Your task to perform on an android device: Open CNN.com Image 0: 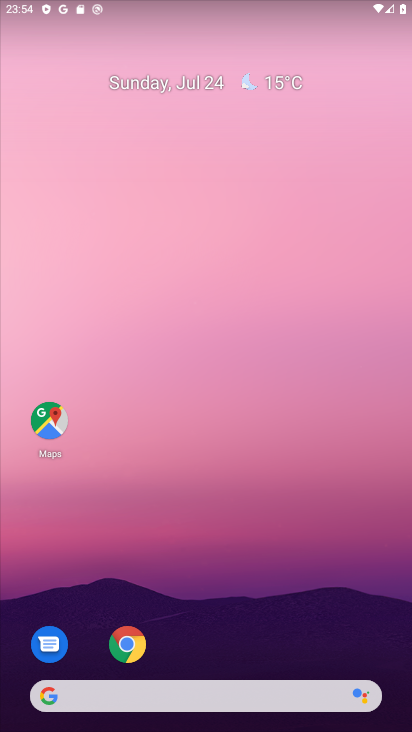
Step 0: click (126, 634)
Your task to perform on an android device: Open CNN.com Image 1: 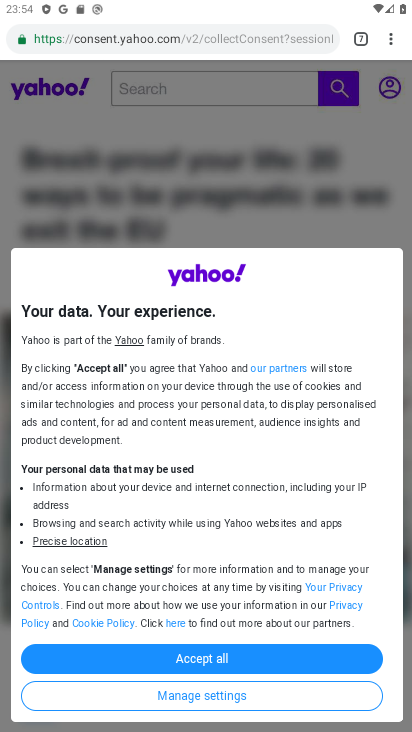
Step 1: click (391, 44)
Your task to perform on an android device: Open CNN.com Image 2: 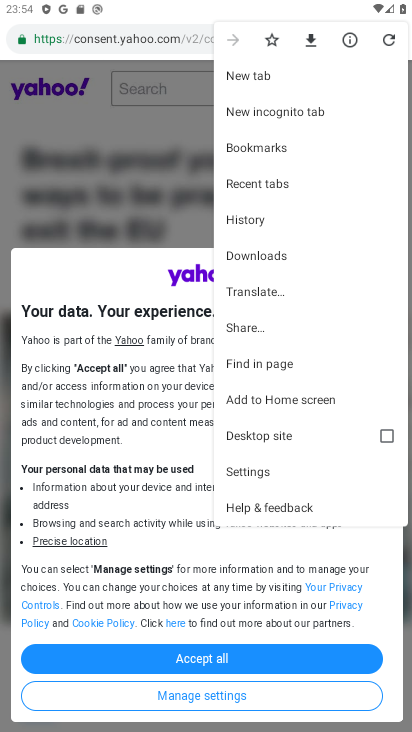
Step 2: click (246, 75)
Your task to perform on an android device: Open CNN.com Image 3: 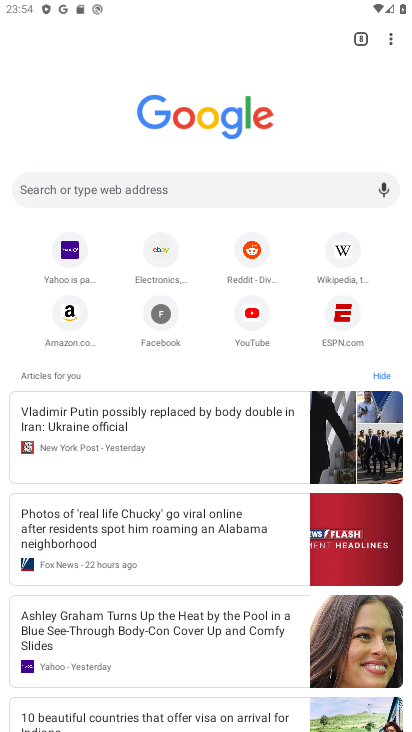
Step 3: click (239, 184)
Your task to perform on an android device: Open CNN.com Image 4: 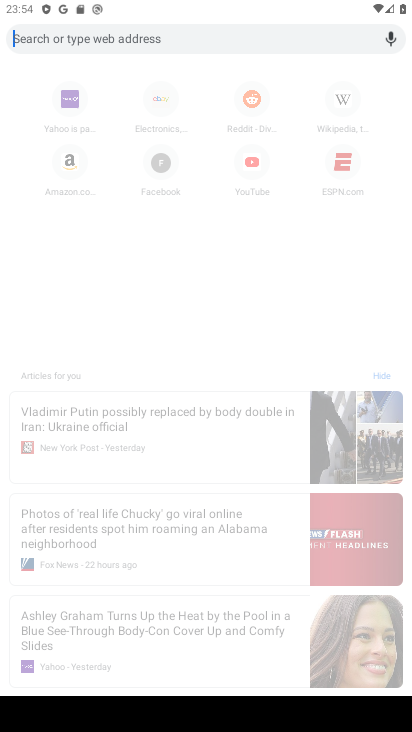
Step 4: type "CNN.com"
Your task to perform on an android device: Open CNN.com Image 5: 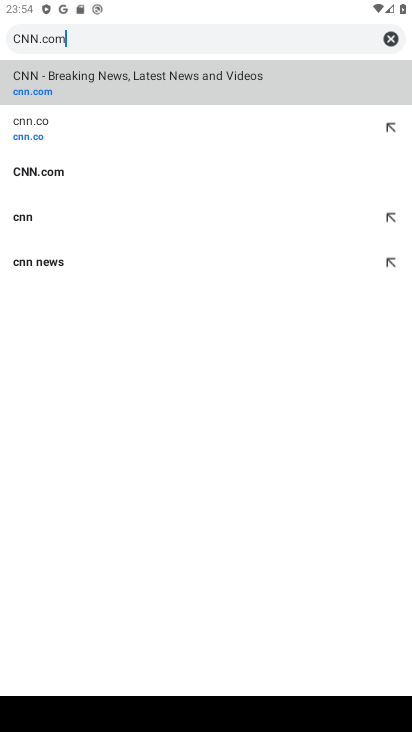
Step 5: type ""
Your task to perform on an android device: Open CNN.com Image 6: 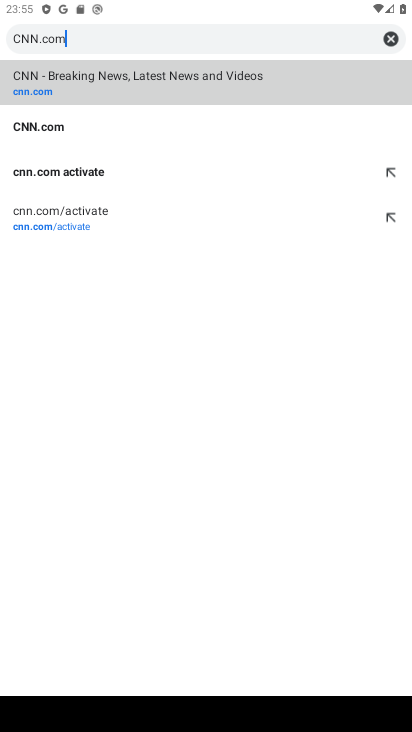
Step 6: click (101, 74)
Your task to perform on an android device: Open CNN.com Image 7: 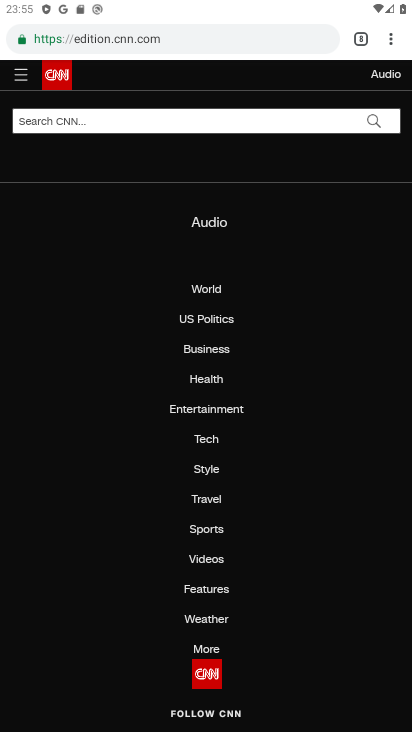
Step 7: task complete